Your task to perform on an android device: When is my next appointment? Image 0: 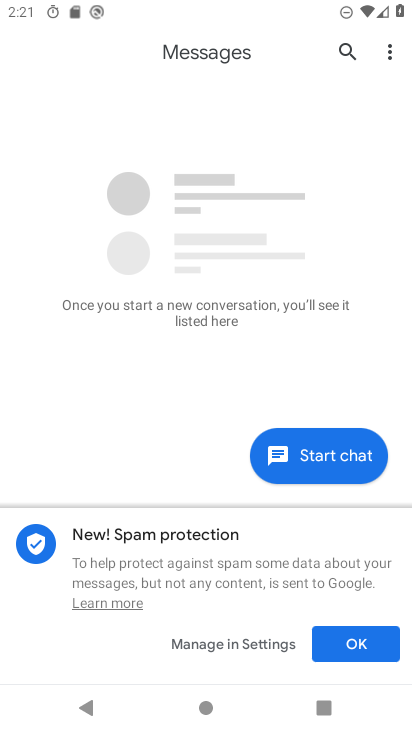
Step 0: press home button
Your task to perform on an android device: When is my next appointment? Image 1: 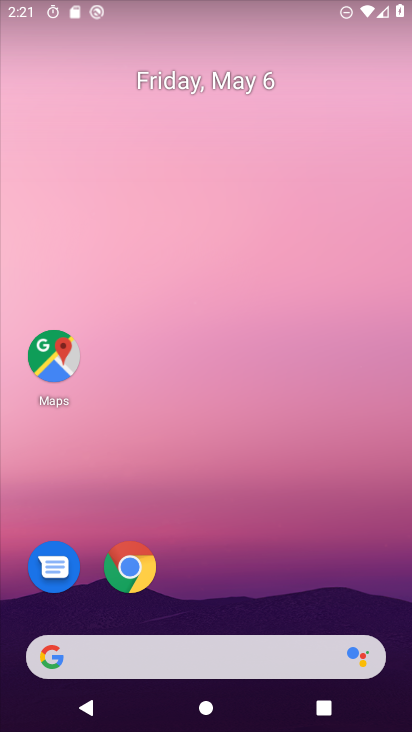
Step 1: drag from (261, 672) to (291, 283)
Your task to perform on an android device: When is my next appointment? Image 2: 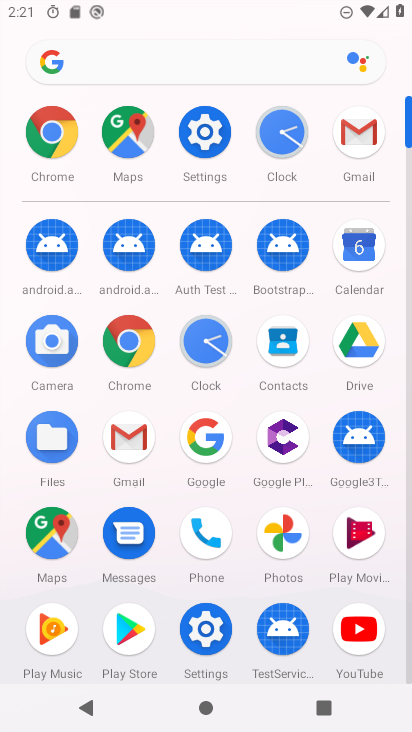
Step 2: click (366, 249)
Your task to perform on an android device: When is my next appointment? Image 3: 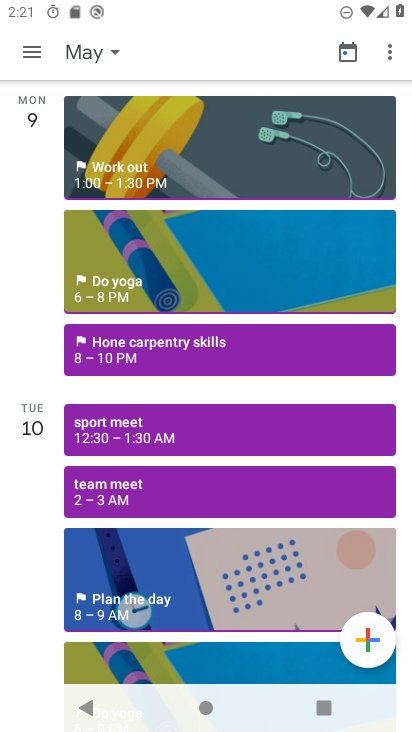
Step 3: click (28, 49)
Your task to perform on an android device: When is my next appointment? Image 4: 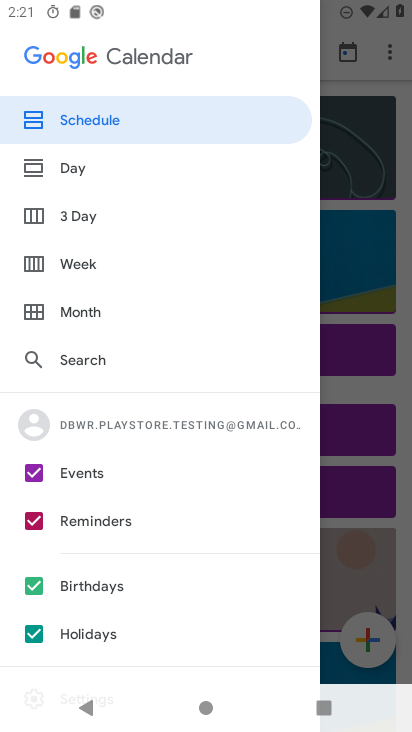
Step 4: click (95, 313)
Your task to perform on an android device: When is my next appointment? Image 5: 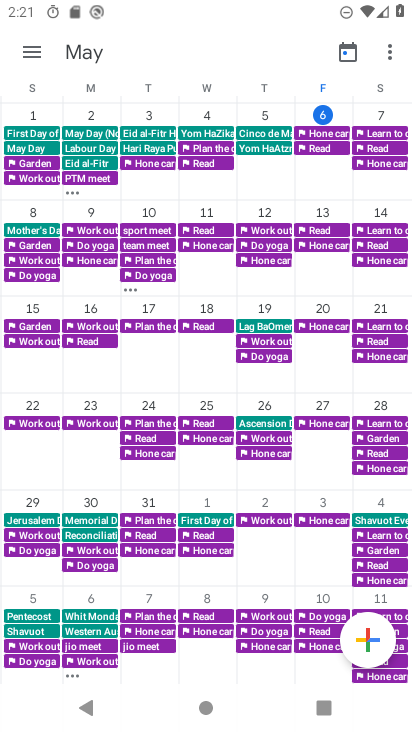
Step 5: click (324, 149)
Your task to perform on an android device: When is my next appointment? Image 6: 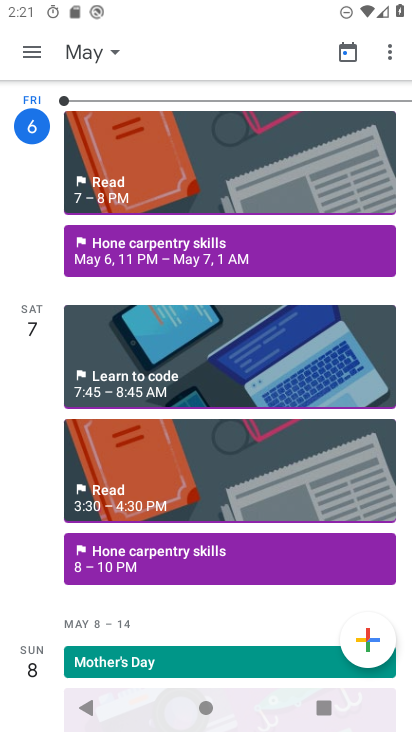
Step 6: task complete